Your task to perform on an android device: change alarm snooze length Image 0: 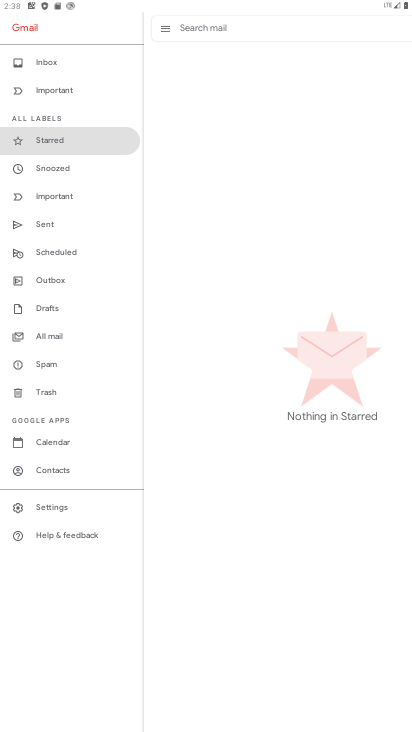
Step 0: press home button
Your task to perform on an android device: change alarm snooze length Image 1: 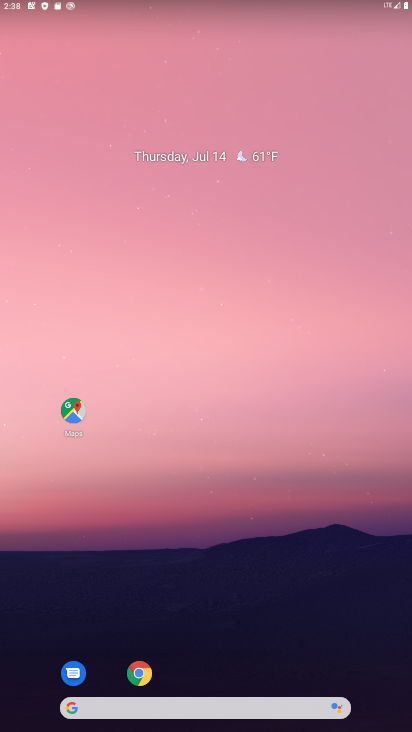
Step 1: drag from (215, 619) to (259, 15)
Your task to perform on an android device: change alarm snooze length Image 2: 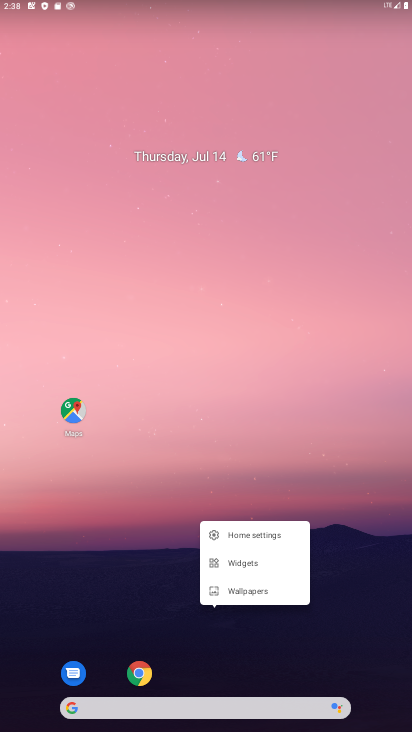
Step 2: drag from (214, 673) to (314, 8)
Your task to perform on an android device: change alarm snooze length Image 3: 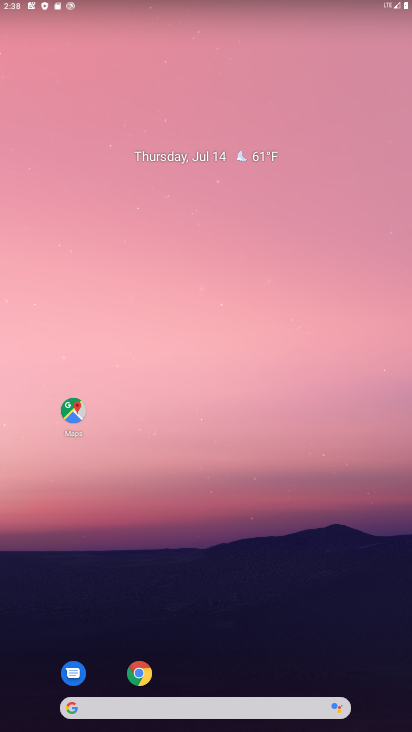
Step 3: drag from (207, 673) to (211, 55)
Your task to perform on an android device: change alarm snooze length Image 4: 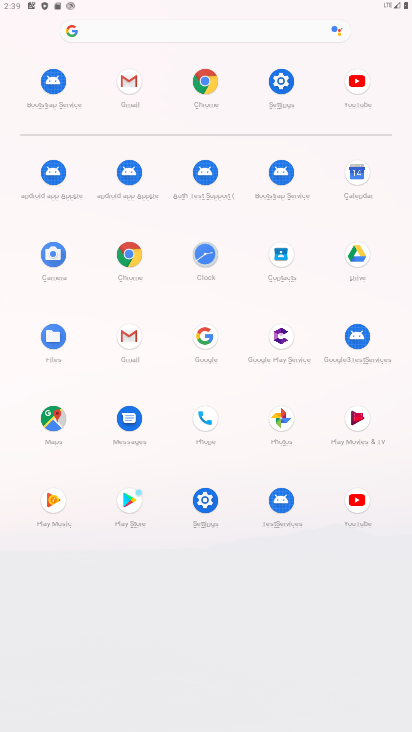
Step 4: click (279, 76)
Your task to perform on an android device: change alarm snooze length Image 5: 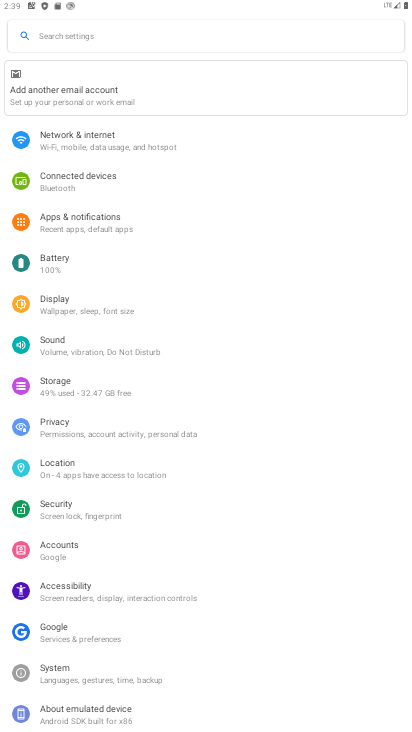
Step 5: press home button
Your task to perform on an android device: change alarm snooze length Image 6: 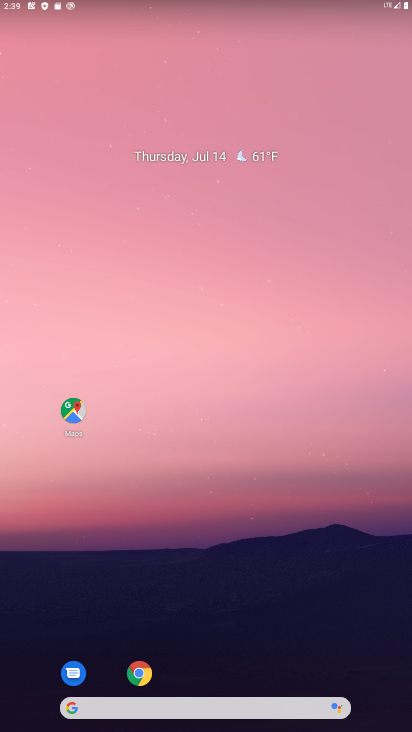
Step 6: drag from (201, 631) to (209, 8)
Your task to perform on an android device: change alarm snooze length Image 7: 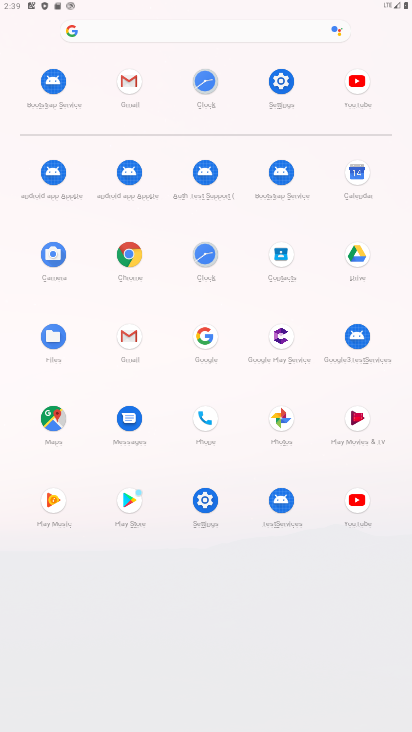
Step 7: click (208, 249)
Your task to perform on an android device: change alarm snooze length Image 8: 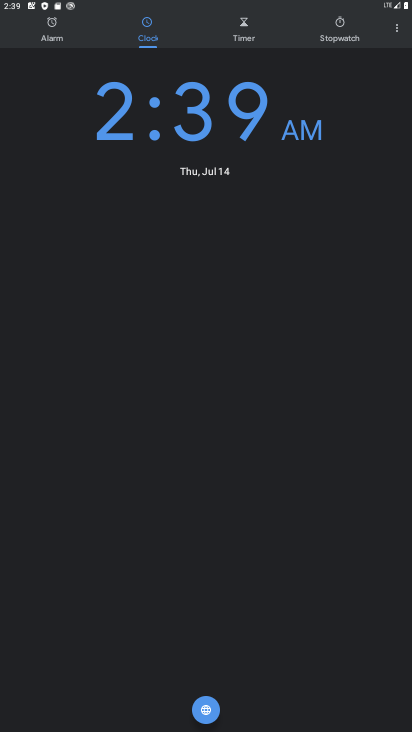
Step 8: click (391, 22)
Your task to perform on an android device: change alarm snooze length Image 9: 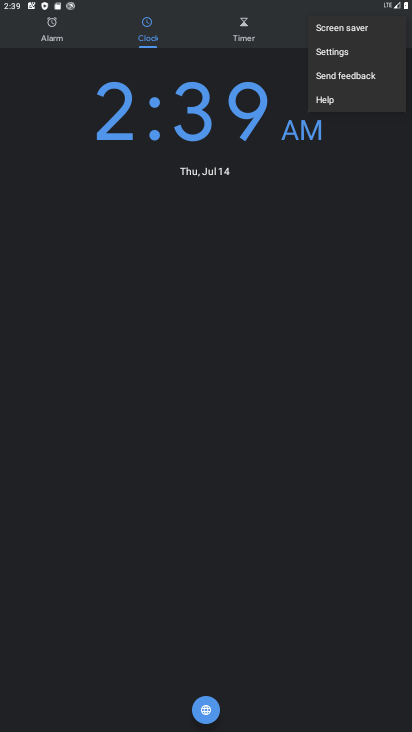
Step 9: click (344, 54)
Your task to perform on an android device: change alarm snooze length Image 10: 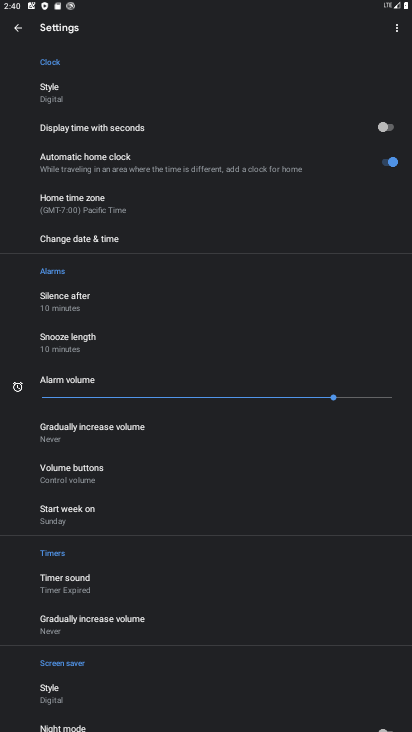
Step 10: click (72, 337)
Your task to perform on an android device: change alarm snooze length Image 11: 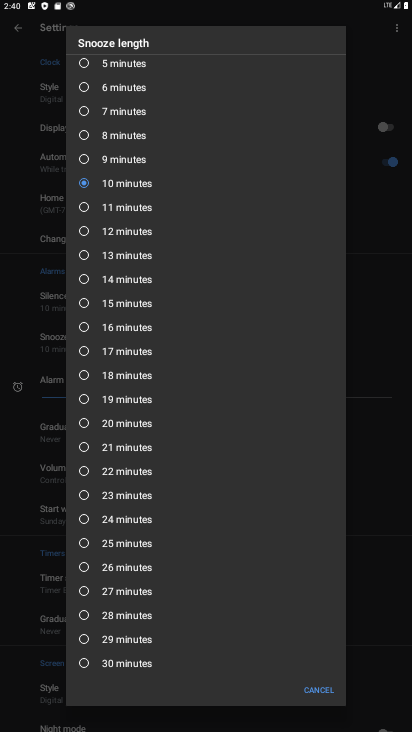
Step 11: click (155, 663)
Your task to perform on an android device: change alarm snooze length Image 12: 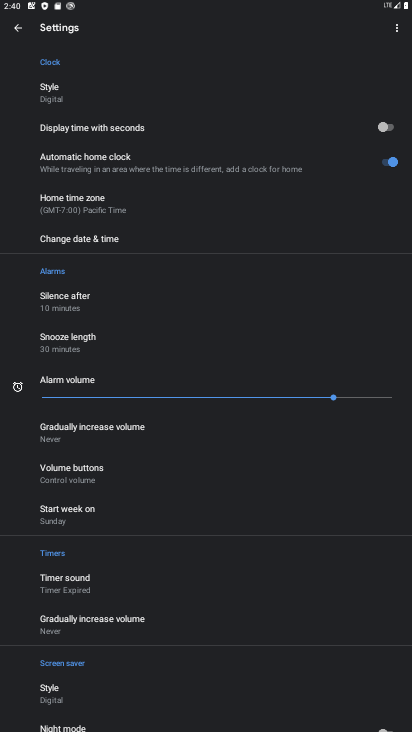
Step 12: task complete